Your task to perform on an android device: Open eBay Image 0: 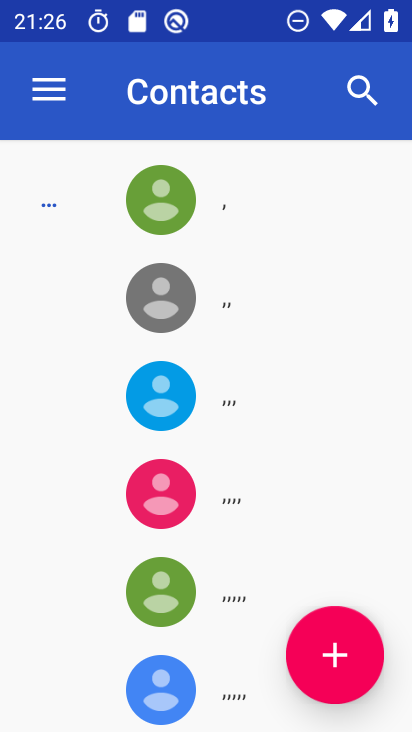
Step 0: press home button
Your task to perform on an android device: Open eBay Image 1: 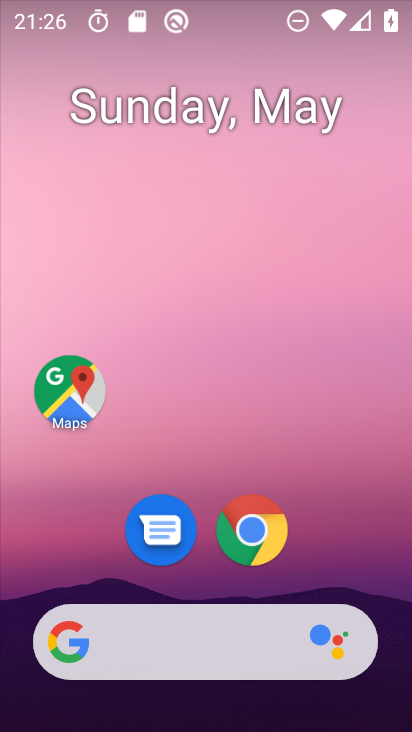
Step 1: drag from (269, 678) to (210, 69)
Your task to perform on an android device: Open eBay Image 2: 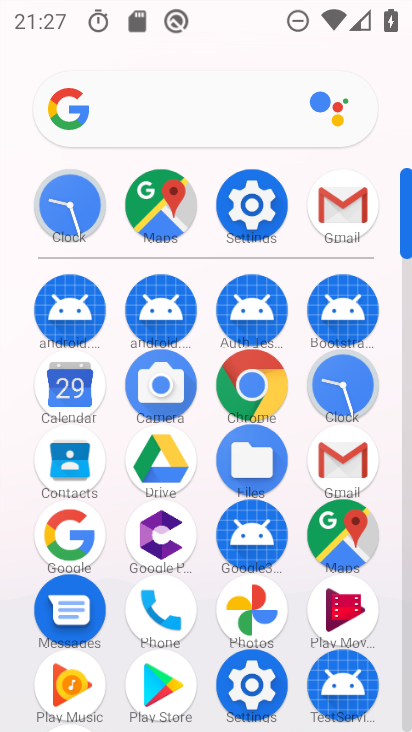
Step 2: click (247, 391)
Your task to perform on an android device: Open eBay Image 3: 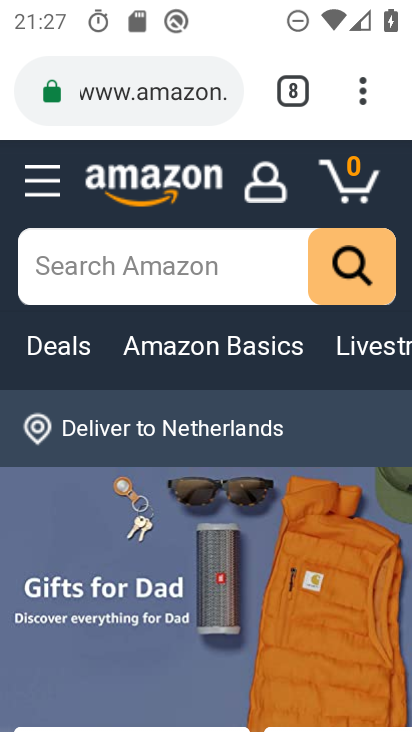
Step 3: click (295, 86)
Your task to perform on an android device: Open eBay Image 4: 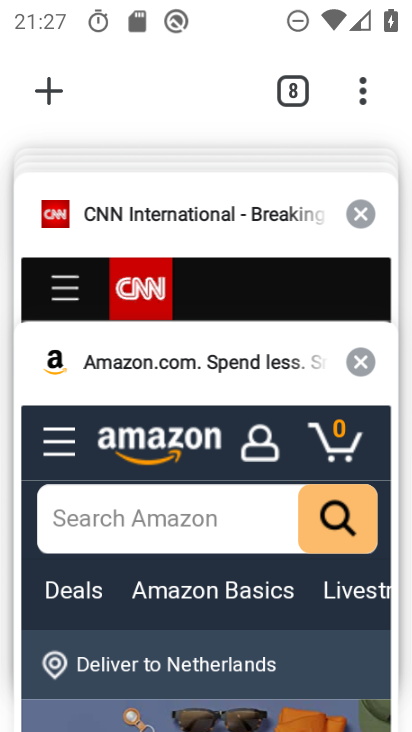
Step 4: click (53, 89)
Your task to perform on an android device: Open eBay Image 5: 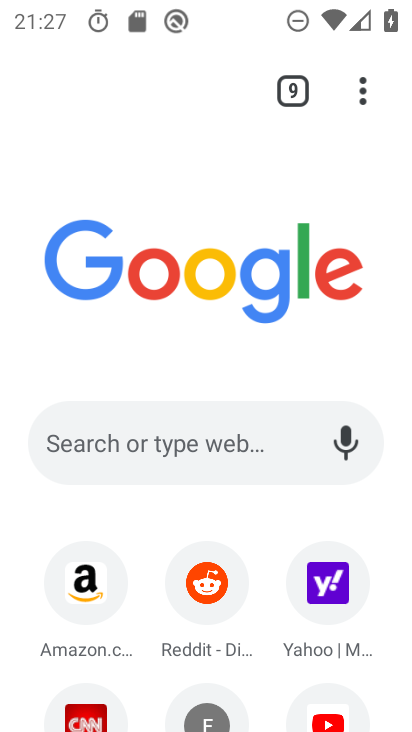
Step 5: click (166, 427)
Your task to perform on an android device: Open eBay Image 6: 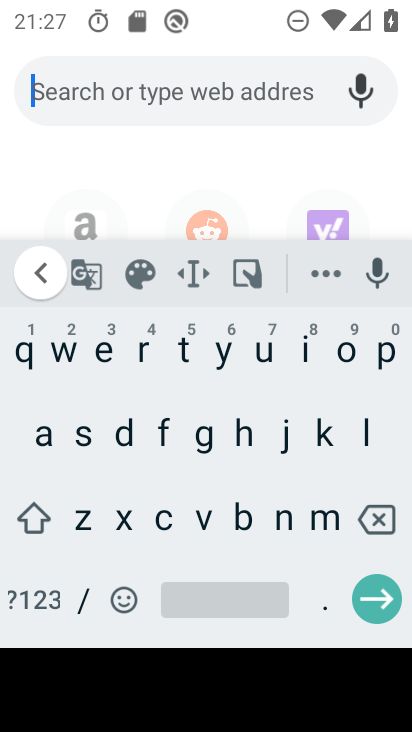
Step 6: click (102, 356)
Your task to perform on an android device: Open eBay Image 7: 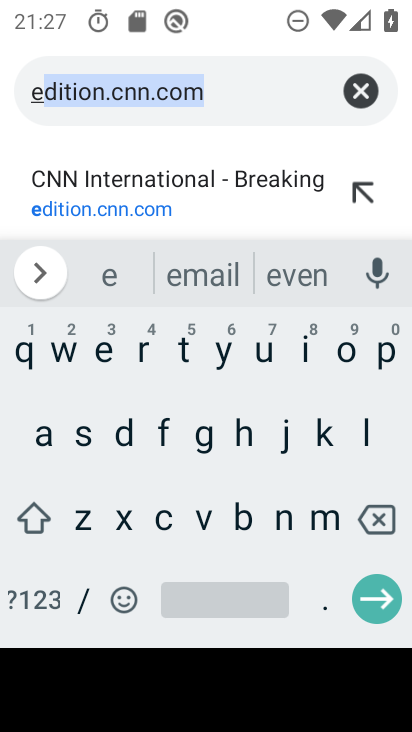
Step 7: click (244, 509)
Your task to perform on an android device: Open eBay Image 8: 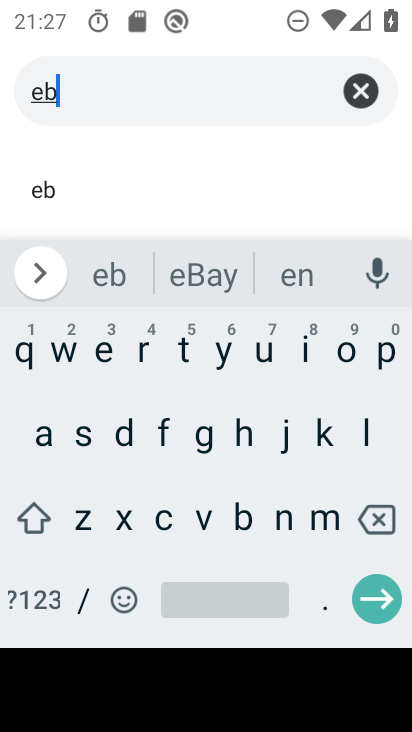
Step 8: click (209, 280)
Your task to perform on an android device: Open eBay Image 9: 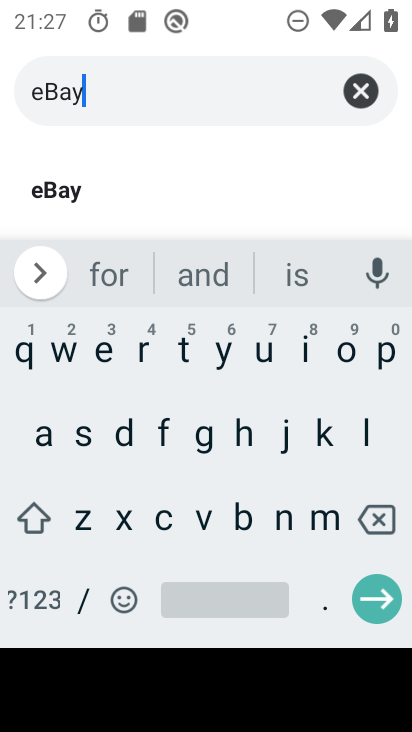
Step 9: click (77, 201)
Your task to perform on an android device: Open eBay Image 10: 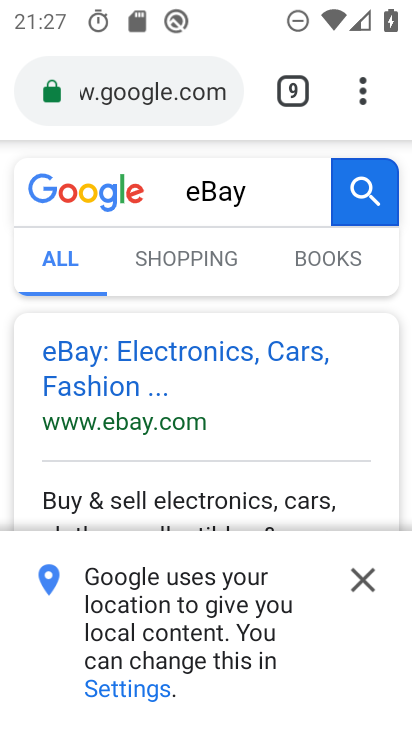
Step 10: click (357, 585)
Your task to perform on an android device: Open eBay Image 11: 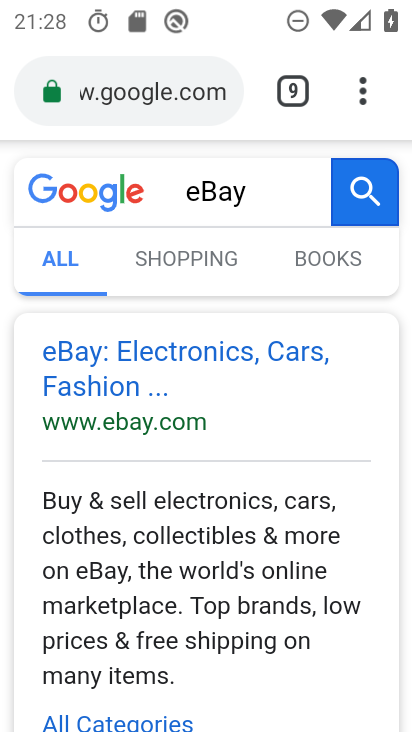
Step 11: click (106, 351)
Your task to perform on an android device: Open eBay Image 12: 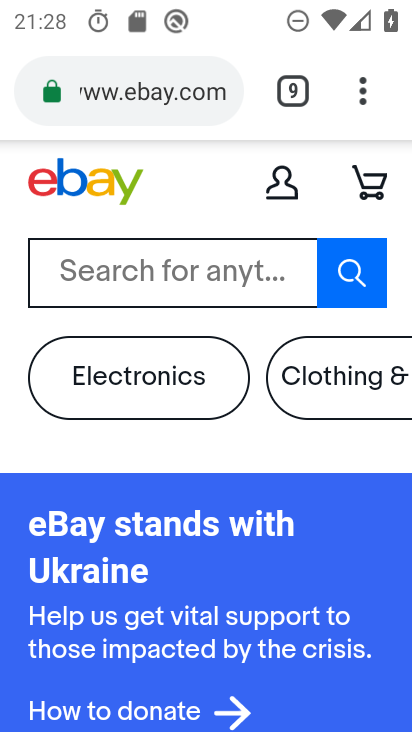
Step 12: task complete